Your task to perform on an android device: toggle notification dots Image 0: 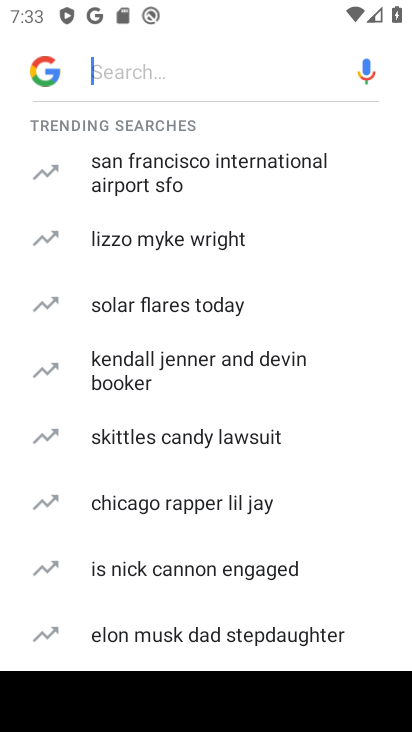
Step 0: press home button
Your task to perform on an android device: toggle notification dots Image 1: 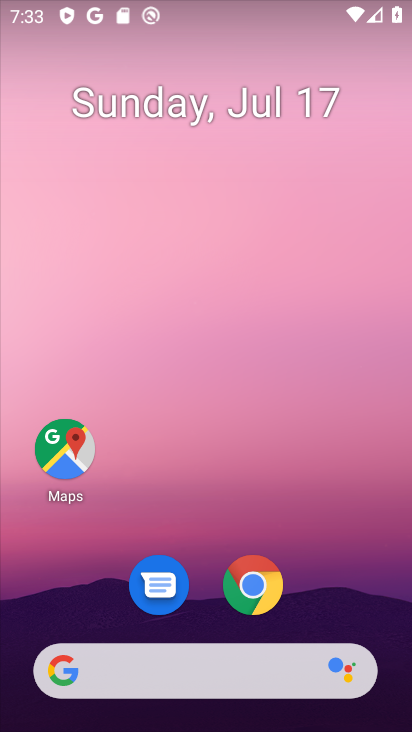
Step 1: drag from (325, 552) to (279, 21)
Your task to perform on an android device: toggle notification dots Image 2: 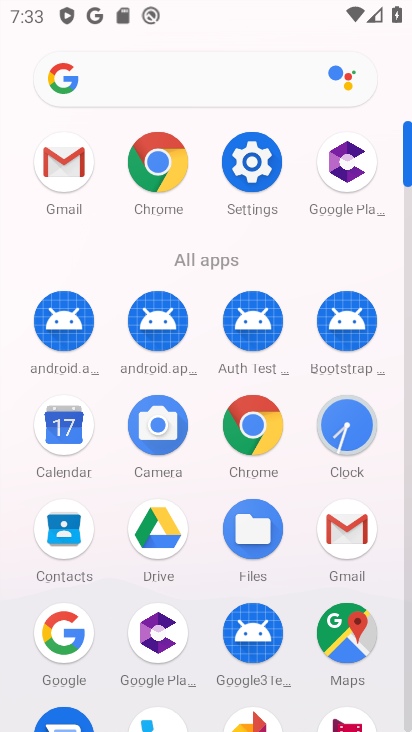
Step 2: click (256, 164)
Your task to perform on an android device: toggle notification dots Image 3: 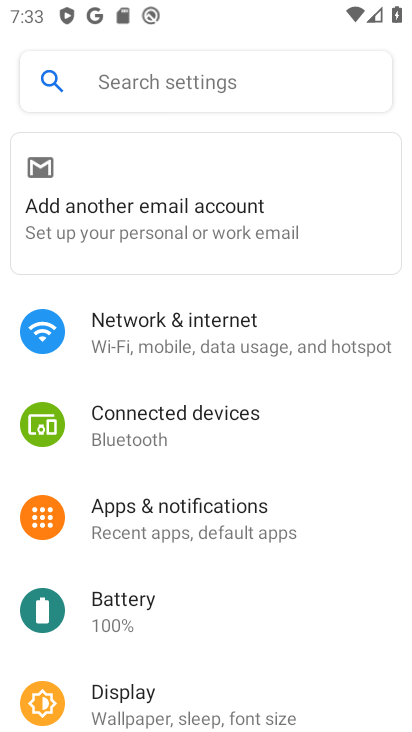
Step 3: click (209, 515)
Your task to perform on an android device: toggle notification dots Image 4: 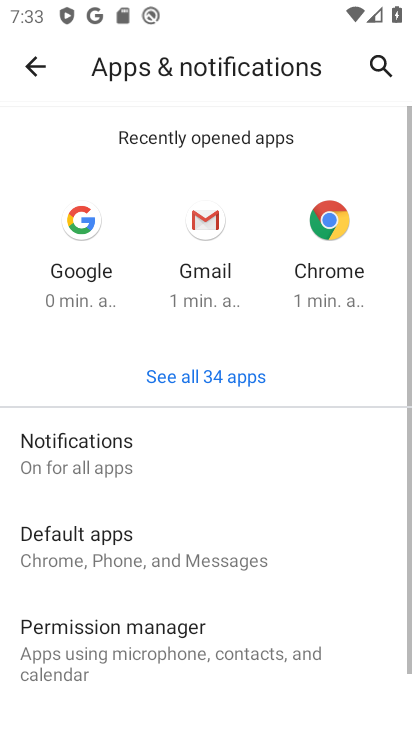
Step 4: click (110, 456)
Your task to perform on an android device: toggle notification dots Image 5: 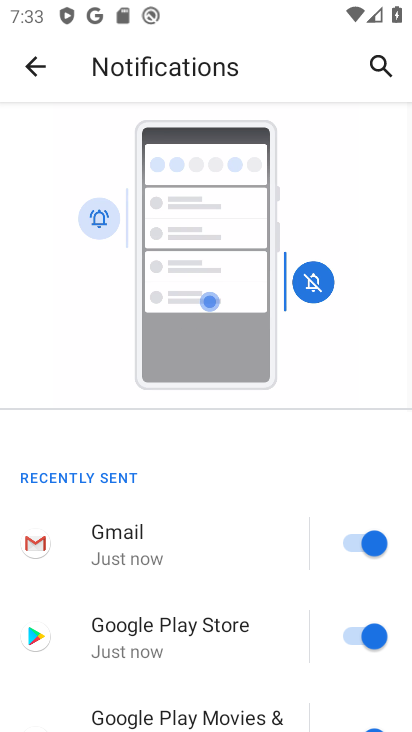
Step 5: drag from (247, 509) to (269, 26)
Your task to perform on an android device: toggle notification dots Image 6: 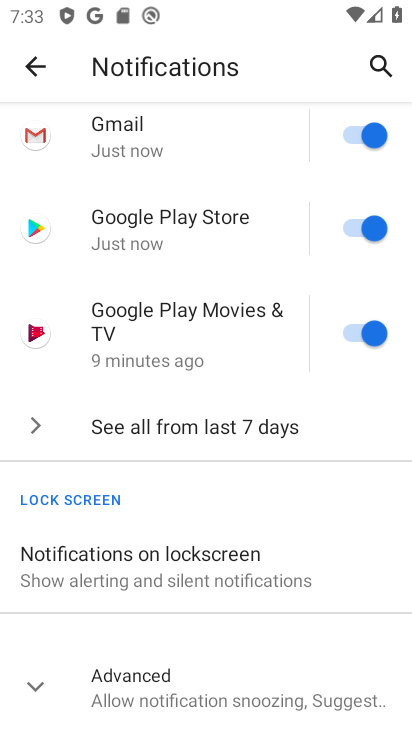
Step 6: drag from (271, 490) to (219, 141)
Your task to perform on an android device: toggle notification dots Image 7: 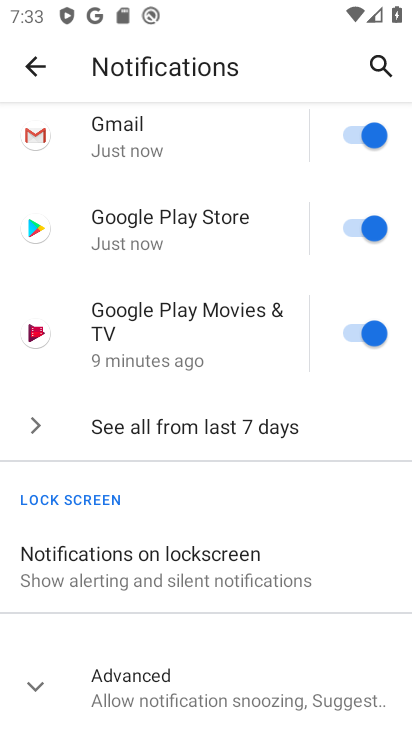
Step 7: click (35, 686)
Your task to perform on an android device: toggle notification dots Image 8: 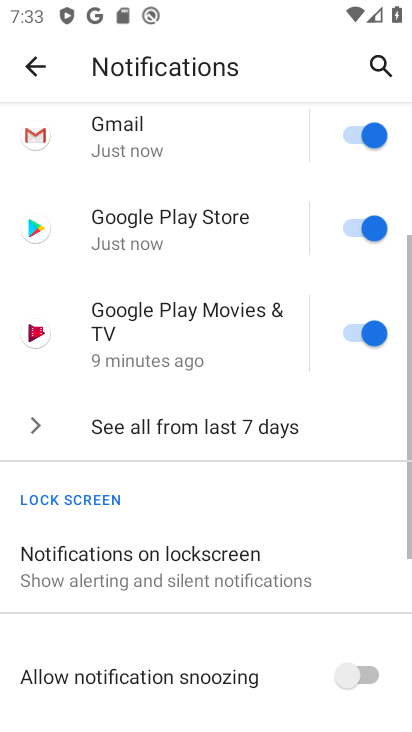
Step 8: drag from (175, 616) to (186, 154)
Your task to perform on an android device: toggle notification dots Image 9: 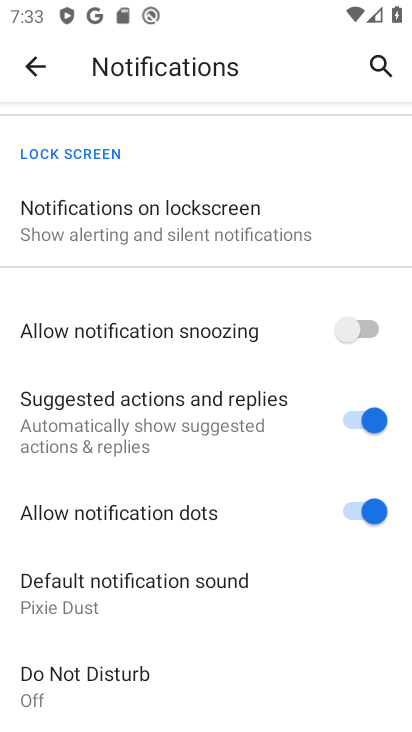
Step 9: click (360, 509)
Your task to perform on an android device: toggle notification dots Image 10: 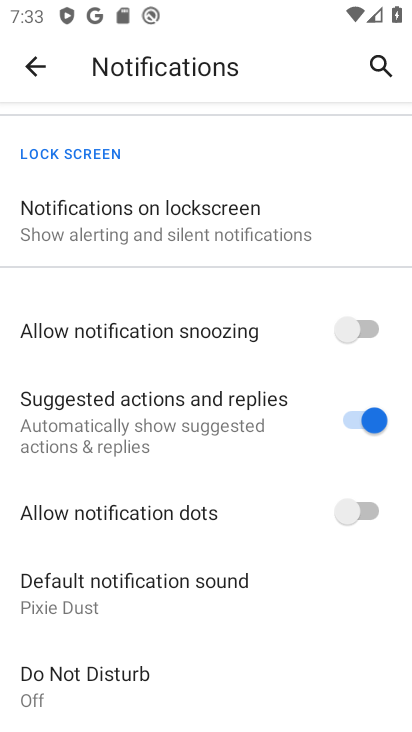
Step 10: task complete